Your task to perform on an android device: turn off wifi Image 0: 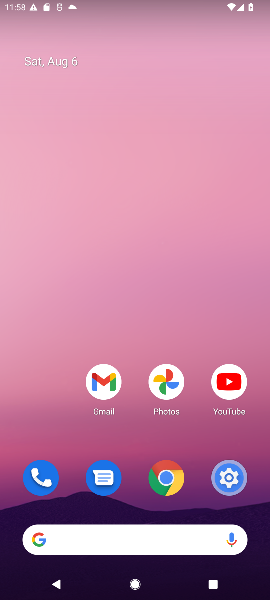
Step 0: drag from (154, 530) to (154, 196)
Your task to perform on an android device: turn off wifi Image 1: 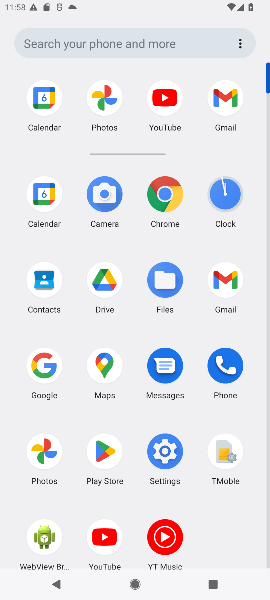
Step 1: click (158, 447)
Your task to perform on an android device: turn off wifi Image 2: 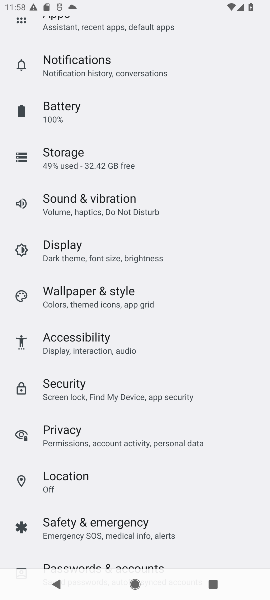
Step 2: drag from (81, 48) to (81, 457)
Your task to perform on an android device: turn off wifi Image 3: 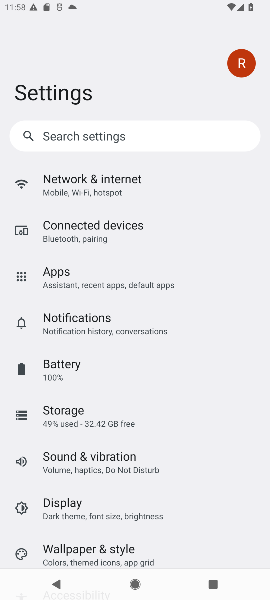
Step 3: click (63, 185)
Your task to perform on an android device: turn off wifi Image 4: 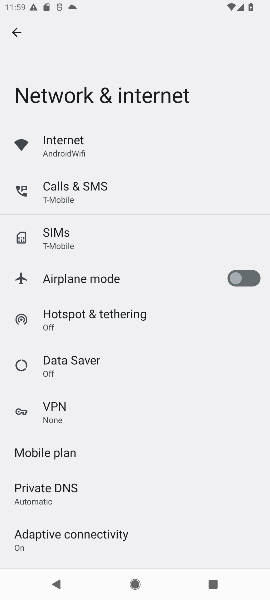
Step 4: click (53, 150)
Your task to perform on an android device: turn off wifi Image 5: 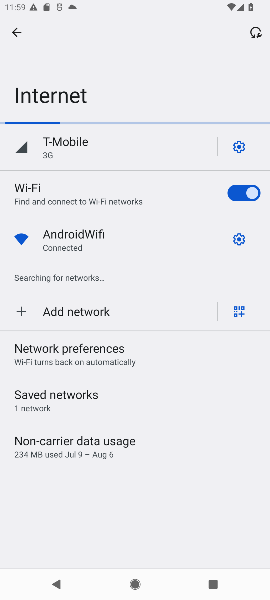
Step 5: click (239, 189)
Your task to perform on an android device: turn off wifi Image 6: 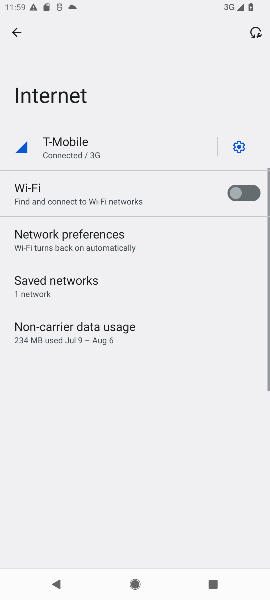
Step 6: task complete